Your task to perform on an android device: turn on translation in the chrome app Image 0: 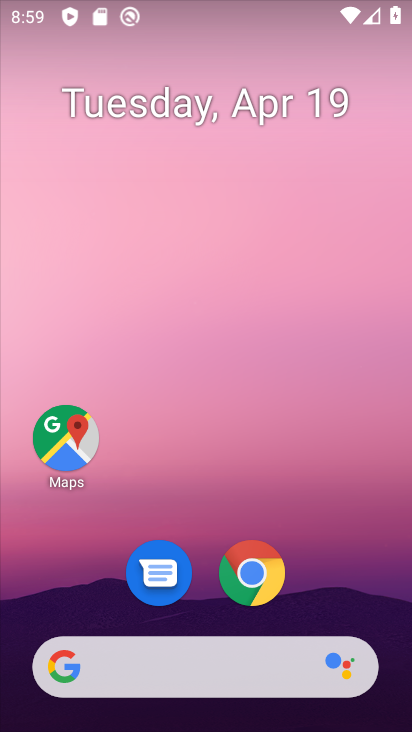
Step 0: click (259, 574)
Your task to perform on an android device: turn on translation in the chrome app Image 1: 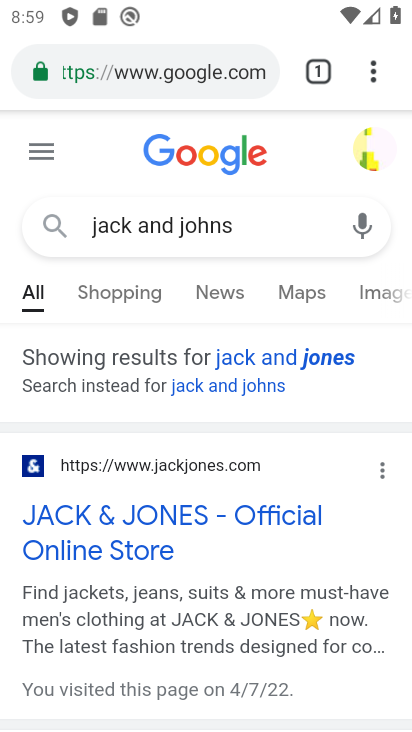
Step 1: click (375, 74)
Your task to perform on an android device: turn on translation in the chrome app Image 2: 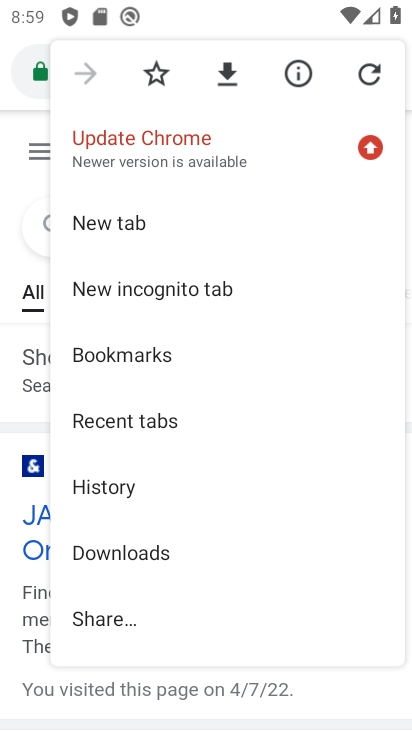
Step 2: drag from (200, 581) to (198, 161)
Your task to perform on an android device: turn on translation in the chrome app Image 3: 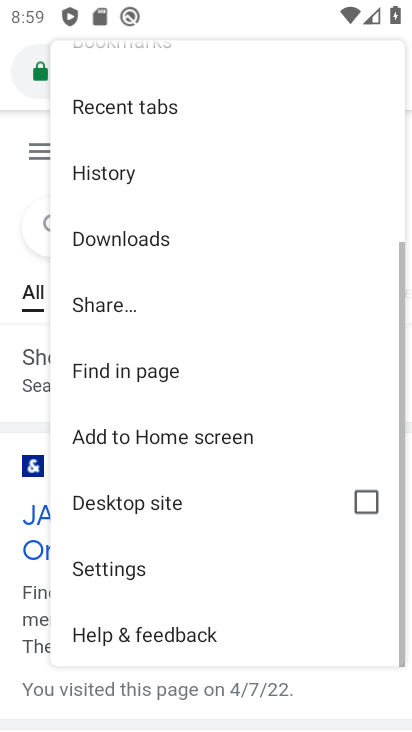
Step 3: click (150, 568)
Your task to perform on an android device: turn on translation in the chrome app Image 4: 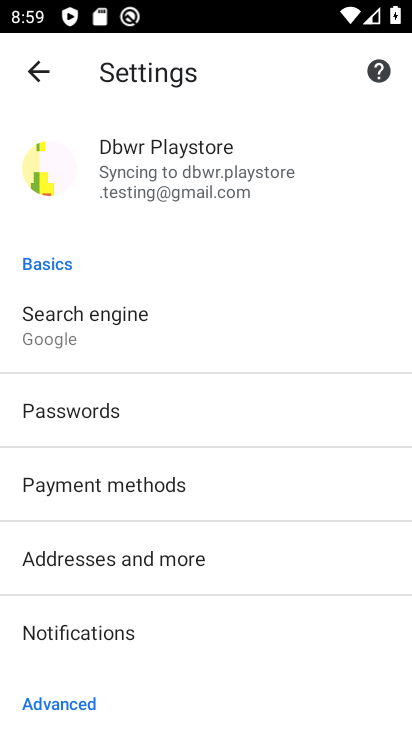
Step 4: drag from (191, 610) to (229, 210)
Your task to perform on an android device: turn on translation in the chrome app Image 5: 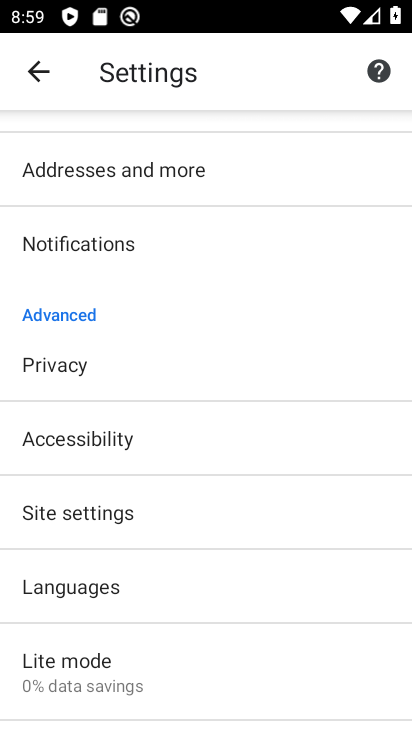
Step 5: click (99, 589)
Your task to perform on an android device: turn on translation in the chrome app Image 6: 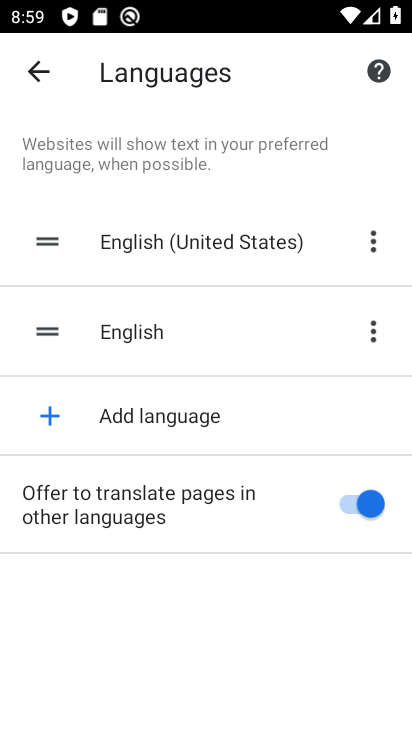
Step 6: task complete